Your task to perform on an android device: Show the shopping cart on costco.com. Add "corsair k70" to the cart on costco.com Image 0: 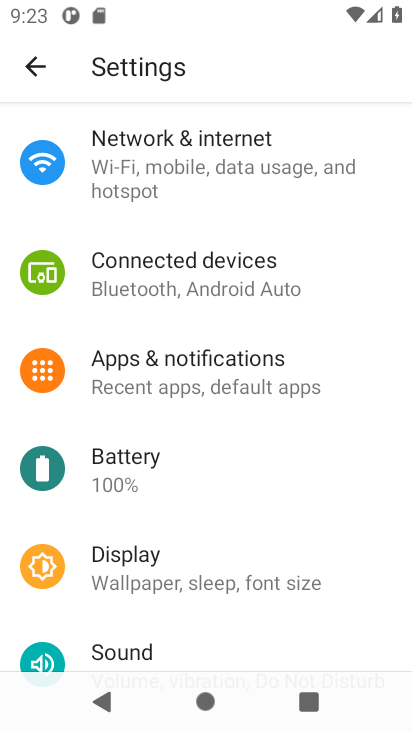
Step 0: press home button
Your task to perform on an android device: Show the shopping cart on costco.com. Add "corsair k70" to the cart on costco.com Image 1: 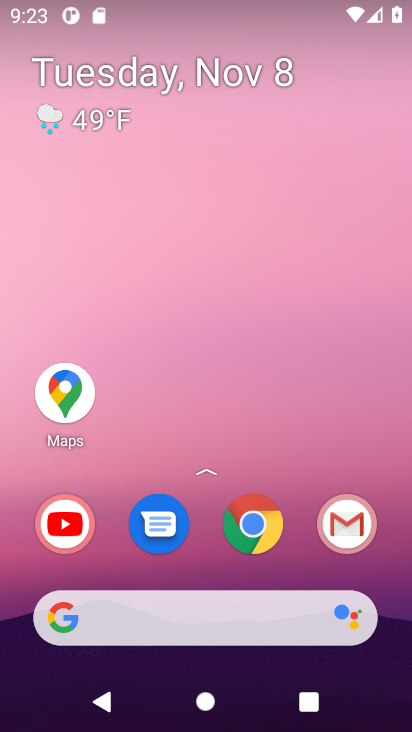
Step 1: click (262, 535)
Your task to perform on an android device: Show the shopping cart on costco.com. Add "corsair k70" to the cart on costco.com Image 2: 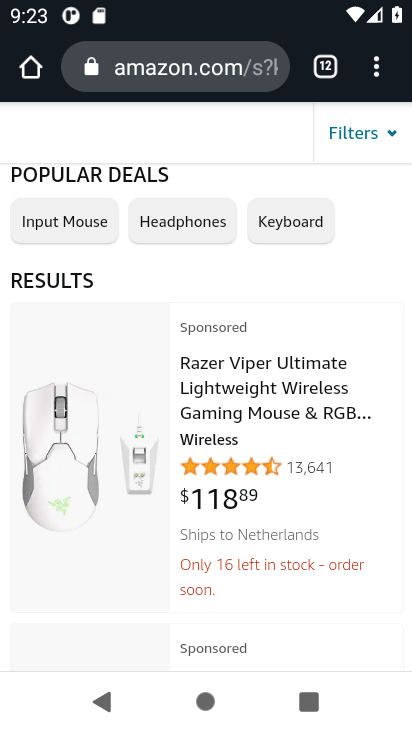
Step 2: click (193, 70)
Your task to perform on an android device: Show the shopping cart on costco.com. Add "corsair k70" to the cart on costco.com Image 3: 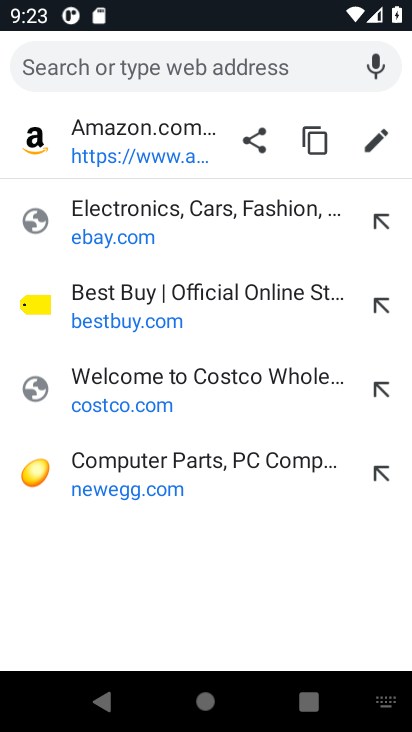
Step 3: click (131, 402)
Your task to perform on an android device: Show the shopping cart on costco.com. Add "corsair k70" to the cart on costco.com Image 4: 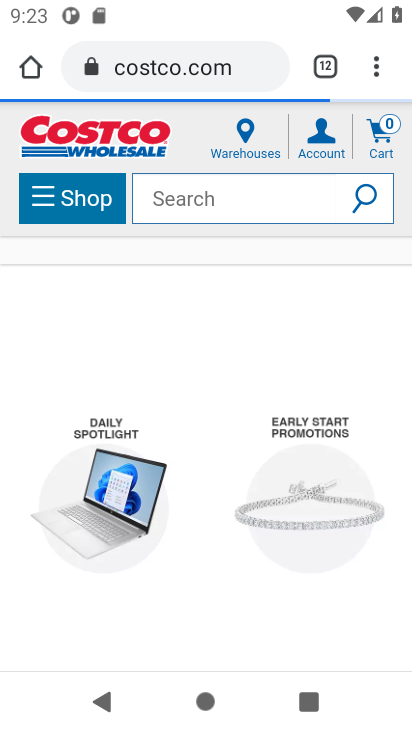
Step 4: click (374, 149)
Your task to perform on an android device: Show the shopping cart on costco.com. Add "corsair k70" to the cart on costco.com Image 5: 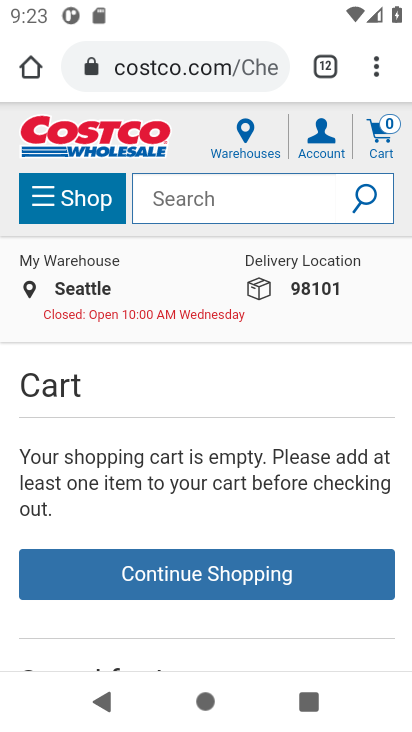
Step 5: click (272, 206)
Your task to perform on an android device: Show the shopping cart on costco.com. Add "corsair k70" to the cart on costco.com Image 6: 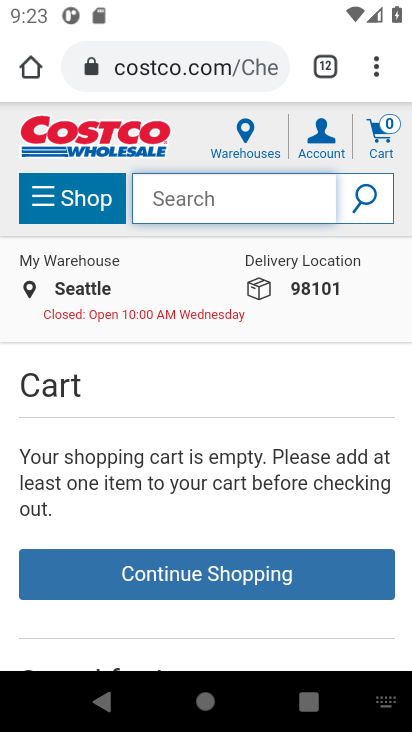
Step 6: type "corsair k70"
Your task to perform on an android device: Show the shopping cart on costco.com. Add "corsair k70" to the cart on costco.com Image 7: 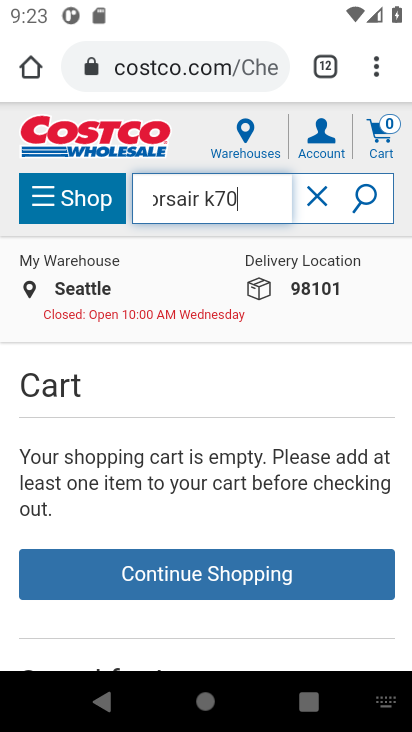
Step 7: click (359, 190)
Your task to perform on an android device: Show the shopping cart on costco.com. Add "corsair k70" to the cart on costco.com Image 8: 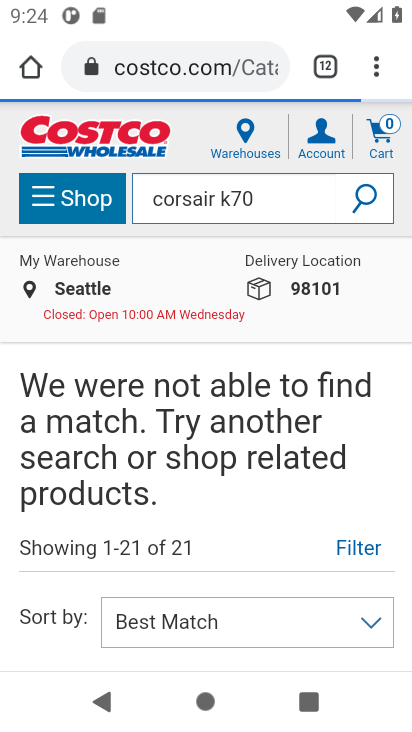
Step 8: task complete